Your task to perform on an android device: Search for Mexican restaurants on Maps Image 0: 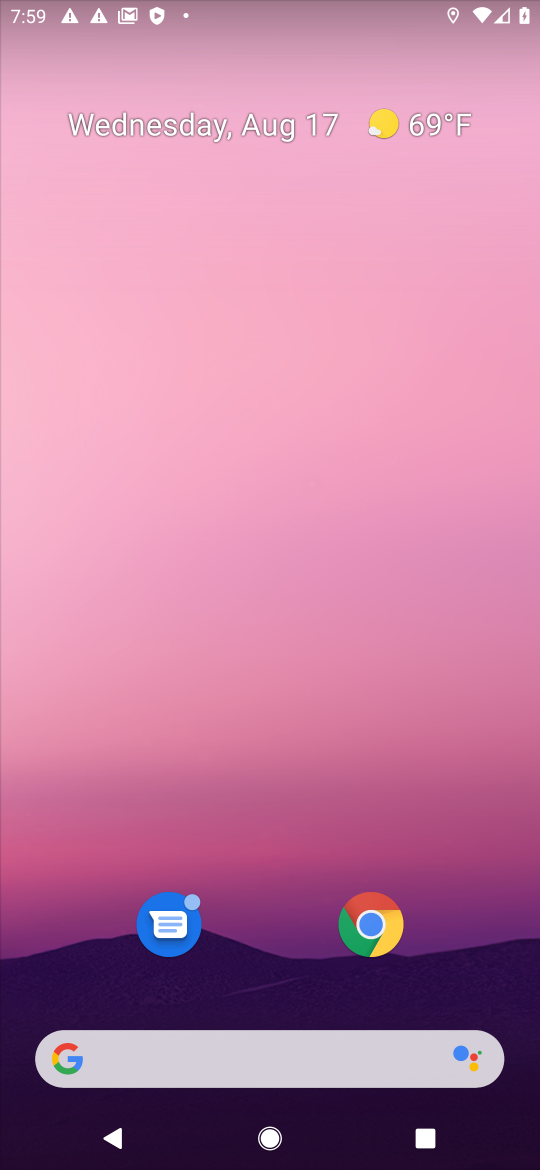
Step 0: drag from (261, 965) to (447, 86)
Your task to perform on an android device: Search for Mexican restaurants on Maps Image 1: 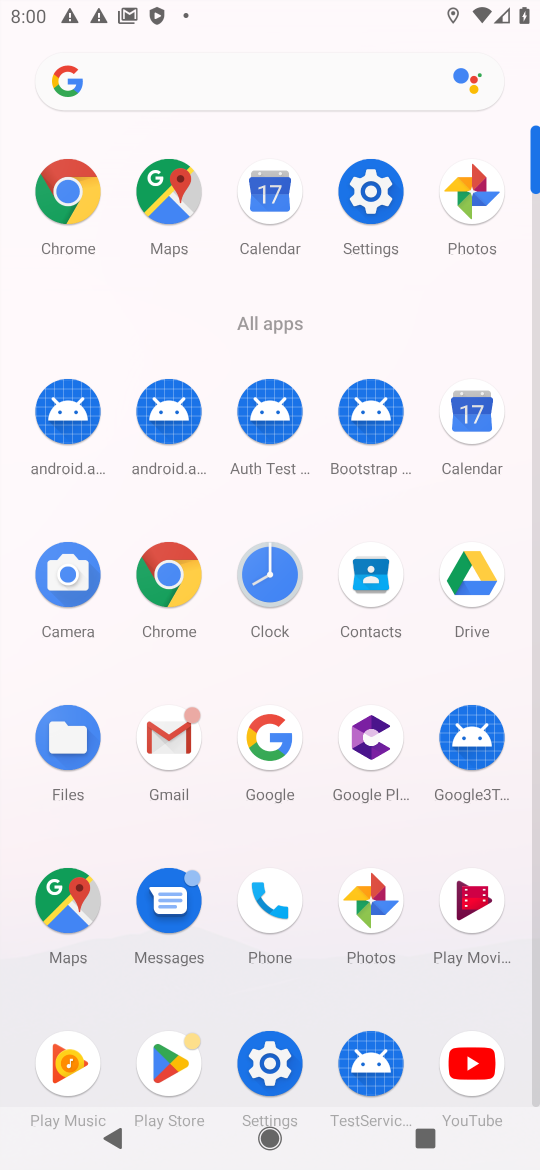
Step 1: click (45, 890)
Your task to perform on an android device: Search for Mexican restaurants on Maps Image 2: 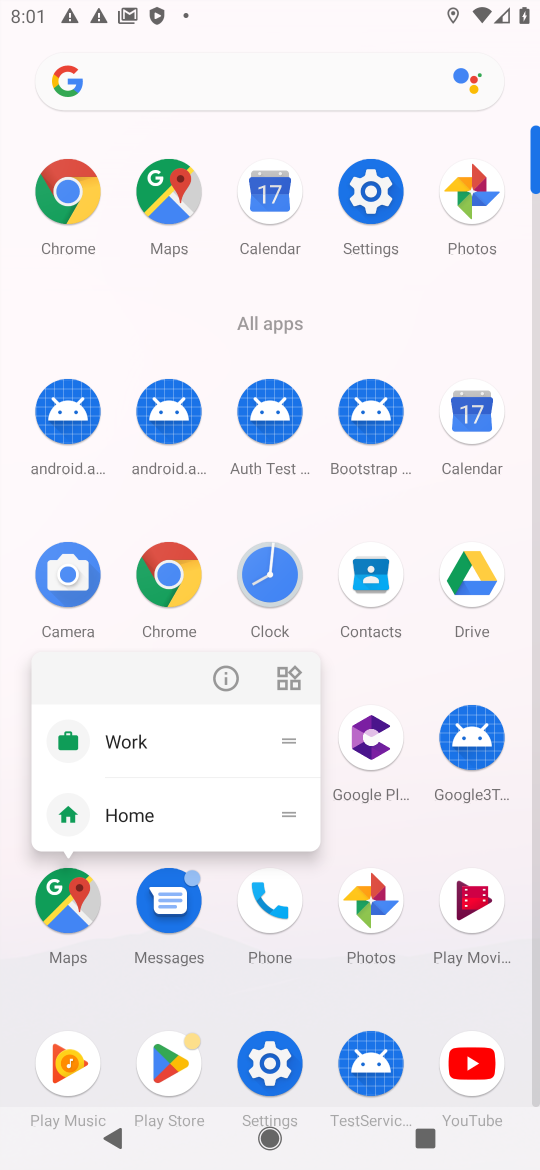
Step 2: click (79, 906)
Your task to perform on an android device: Search for Mexican restaurants on Maps Image 3: 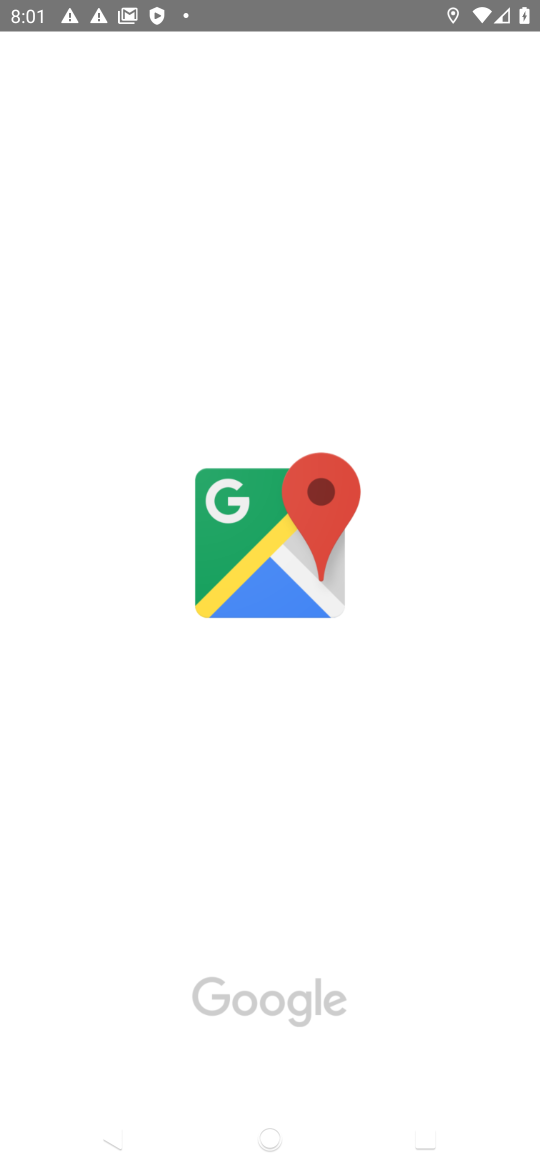
Step 3: task complete